Your task to perform on an android device: What is the news today? Image 0: 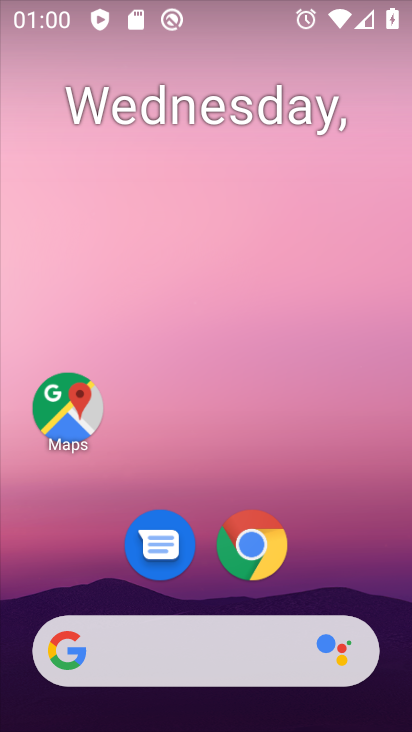
Step 0: drag from (355, 582) to (316, 187)
Your task to perform on an android device: What is the news today? Image 1: 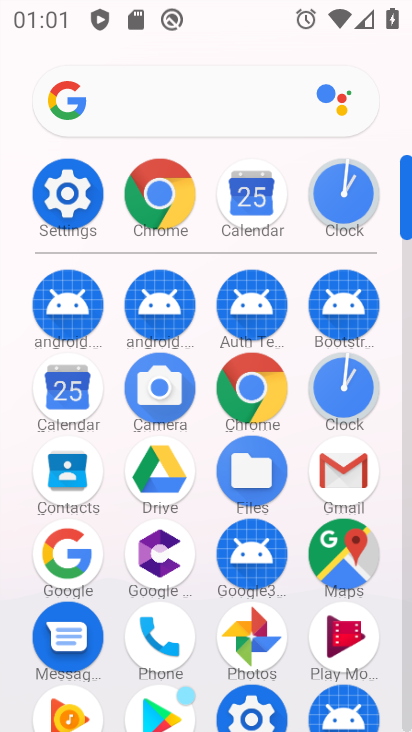
Step 1: click (259, 386)
Your task to perform on an android device: What is the news today? Image 2: 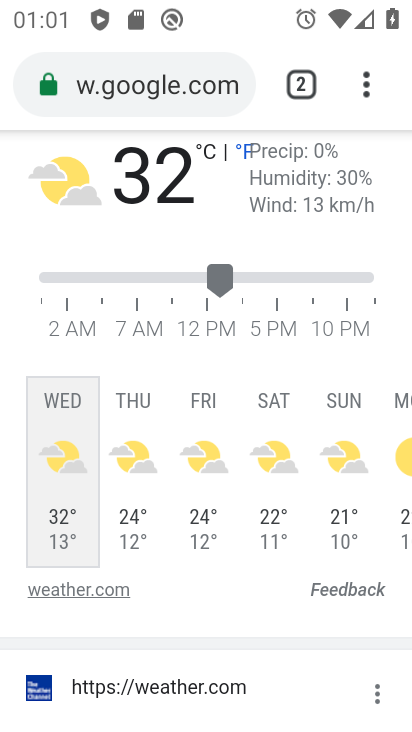
Step 2: click (189, 81)
Your task to perform on an android device: What is the news today? Image 3: 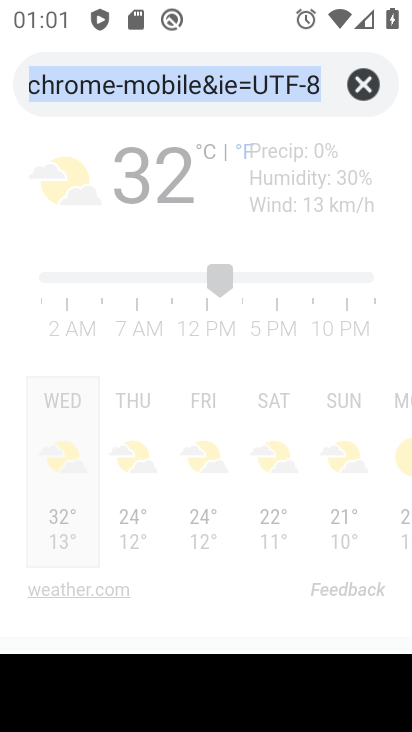
Step 3: type "news"
Your task to perform on an android device: What is the news today? Image 4: 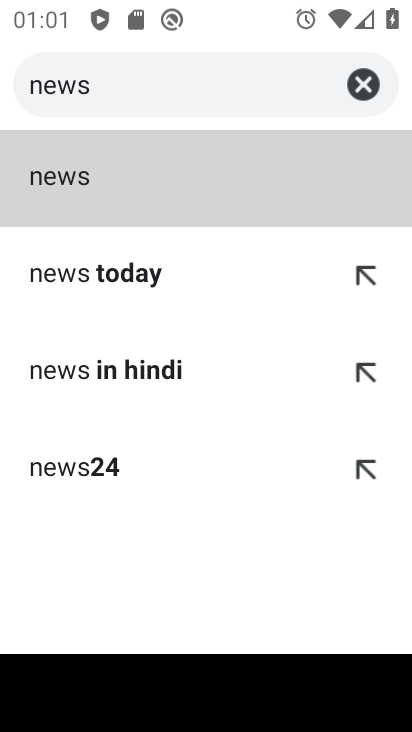
Step 4: click (85, 178)
Your task to perform on an android device: What is the news today? Image 5: 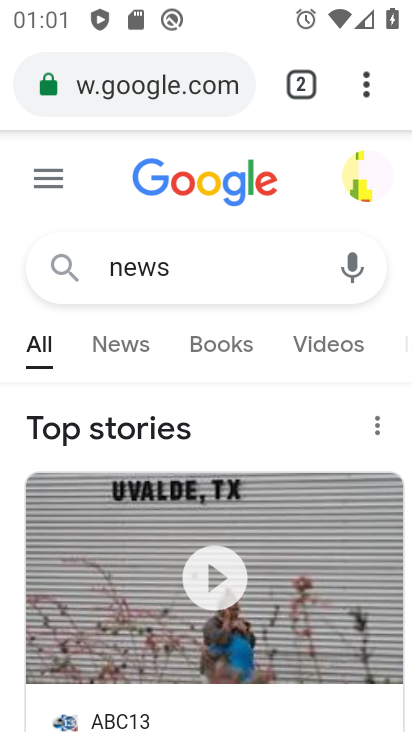
Step 5: click (140, 355)
Your task to perform on an android device: What is the news today? Image 6: 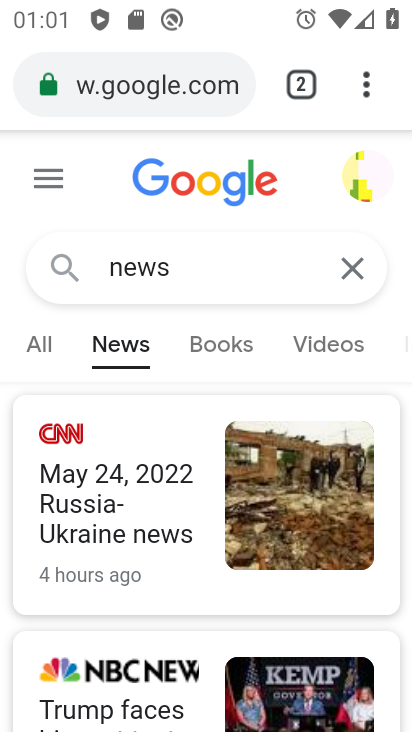
Step 6: task complete